Your task to perform on an android device: turn off airplane mode Image 0: 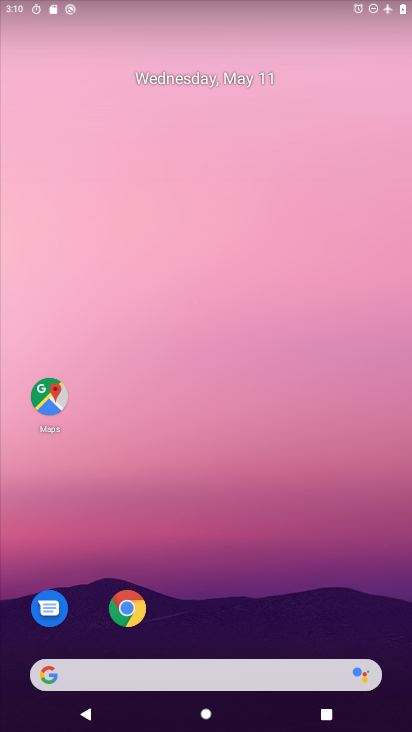
Step 0: drag from (218, 600) to (287, 126)
Your task to perform on an android device: turn off airplane mode Image 1: 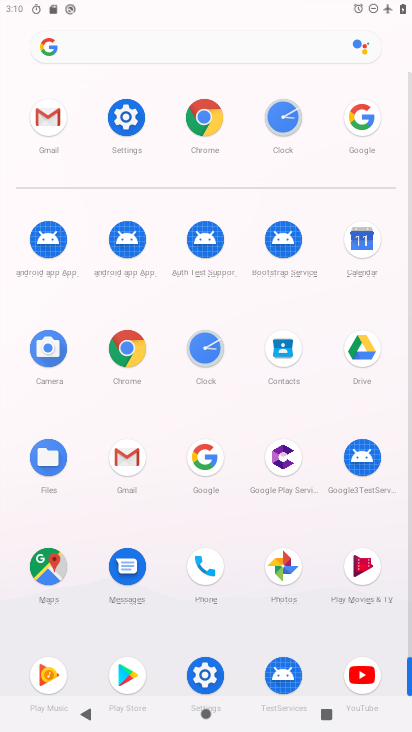
Step 1: drag from (346, 43) to (337, 373)
Your task to perform on an android device: turn off airplane mode Image 2: 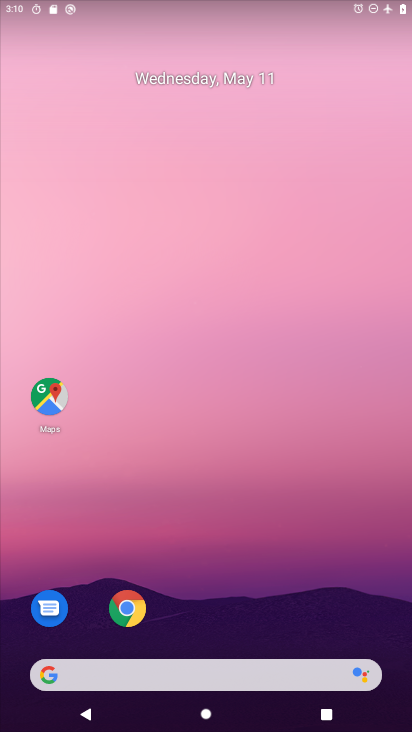
Step 2: drag from (359, 21) to (301, 536)
Your task to perform on an android device: turn off airplane mode Image 3: 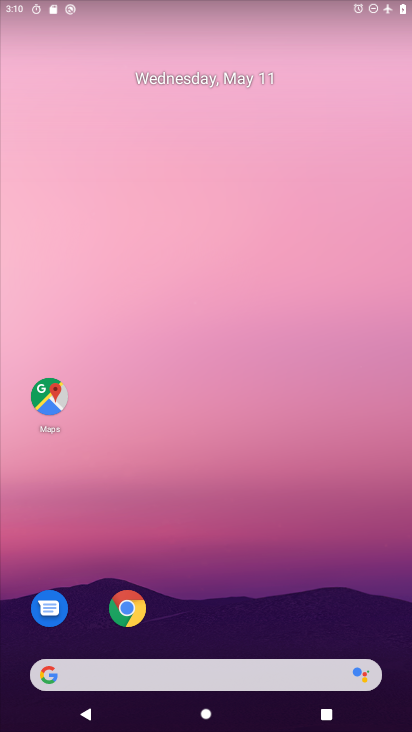
Step 3: drag from (347, 3) to (279, 648)
Your task to perform on an android device: turn off airplane mode Image 4: 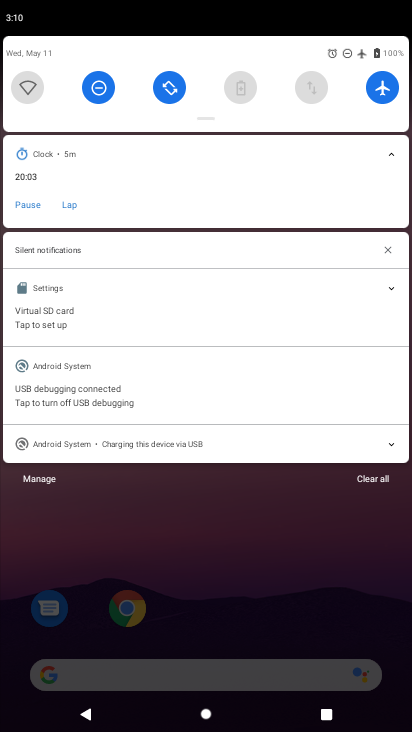
Step 4: drag from (335, 163) to (290, 558)
Your task to perform on an android device: turn off airplane mode Image 5: 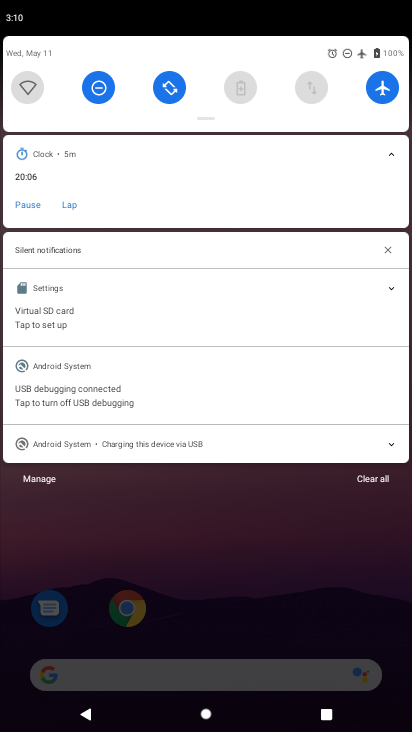
Step 5: drag from (310, 462) to (355, 139)
Your task to perform on an android device: turn off airplane mode Image 6: 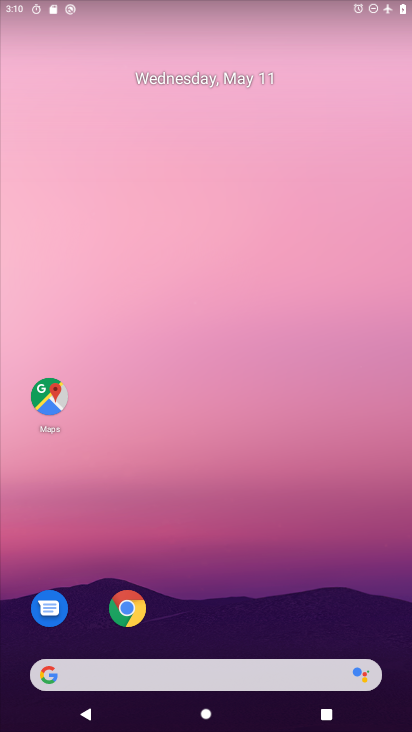
Step 6: drag from (181, 646) to (348, 37)
Your task to perform on an android device: turn off airplane mode Image 7: 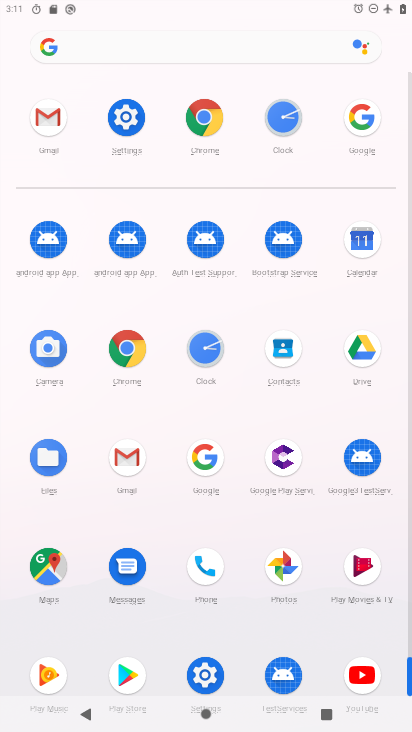
Step 7: click (134, 137)
Your task to perform on an android device: turn off airplane mode Image 8: 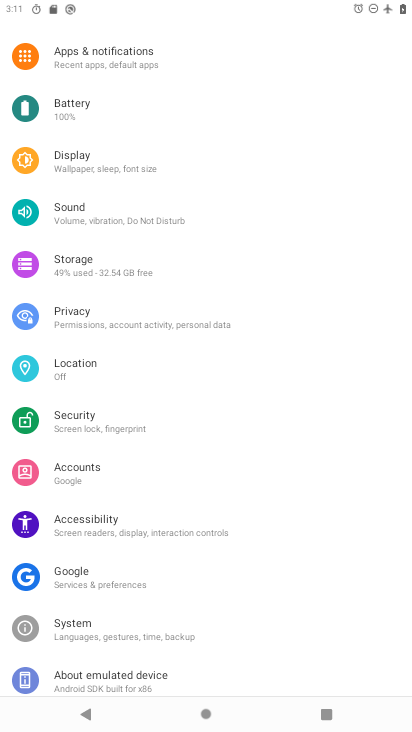
Step 8: drag from (251, 292) to (276, 447)
Your task to perform on an android device: turn off airplane mode Image 9: 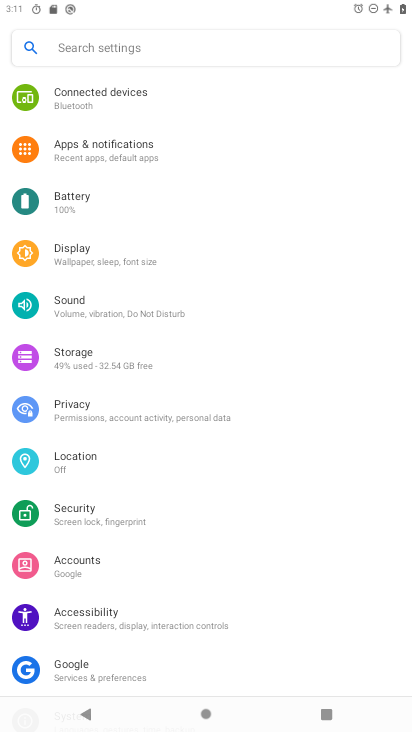
Step 9: drag from (301, 230) to (315, 411)
Your task to perform on an android device: turn off airplane mode Image 10: 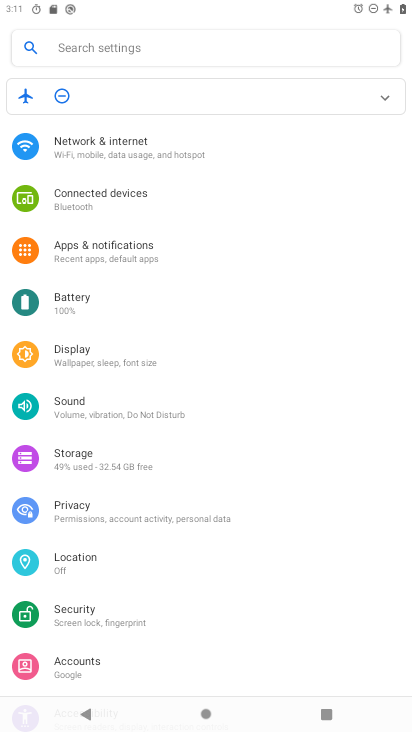
Step 10: drag from (209, 245) to (216, 549)
Your task to perform on an android device: turn off airplane mode Image 11: 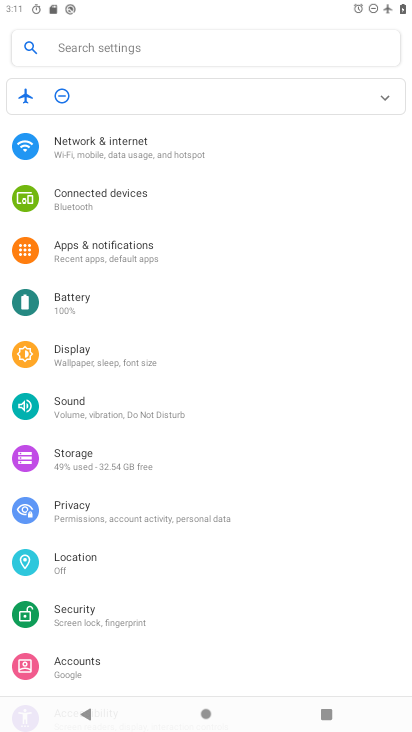
Step 11: click (264, 149)
Your task to perform on an android device: turn off airplane mode Image 12: 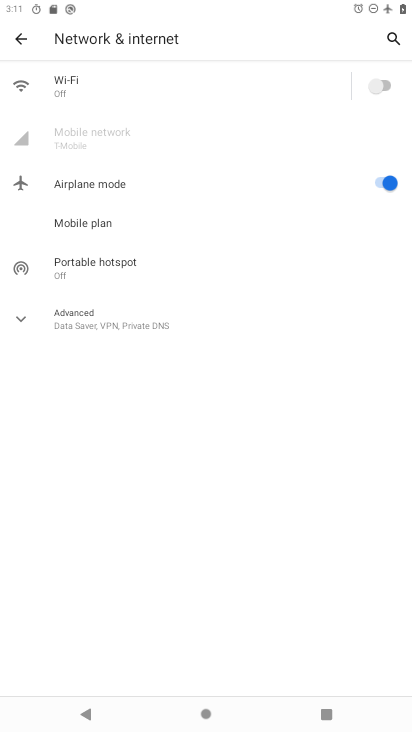
Step 12: click (386, 171)
Your task to perform on an android device: turn off airplane mode Image 13: 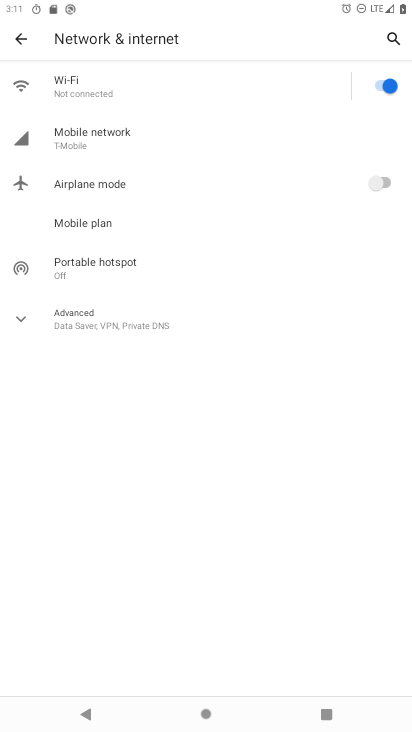
Step 13: task complete